Your task to perform on an android device: open device folders in google photos Image 0: 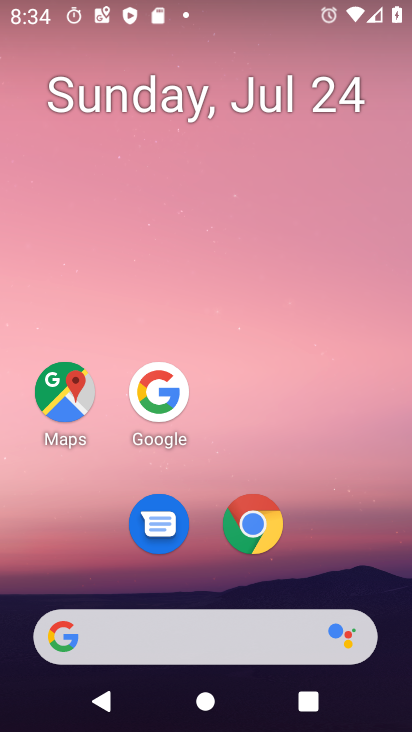
Step 0: press home button
Your task to perform on an android device: open device folders in google photos Image 1: 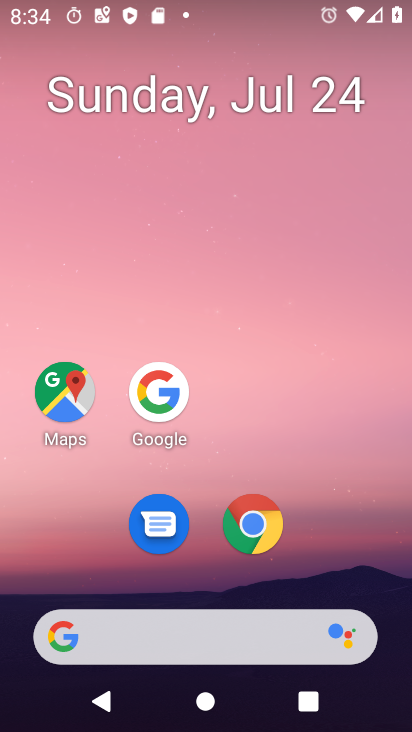
Step 1: drag from (195, 647) to (355, 0)
Your task to perform on an android device: open device folders in google photos Image 2: 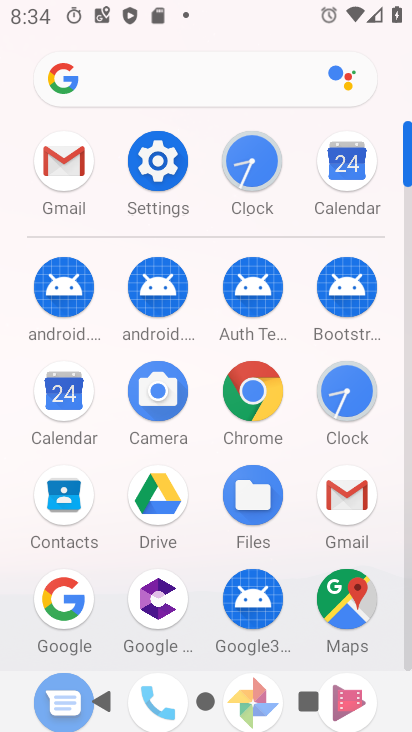
Step 2: drag from (209, 557) to (379, 104)
Your task to perform on an android device: open device folders in google photos Image 3: 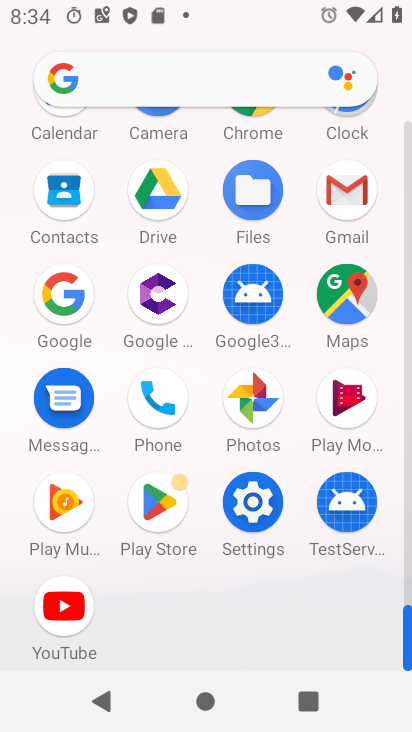
Step 3: click (236, 419)
Your task to perform on an android device: open device folders in google photos Image 4: 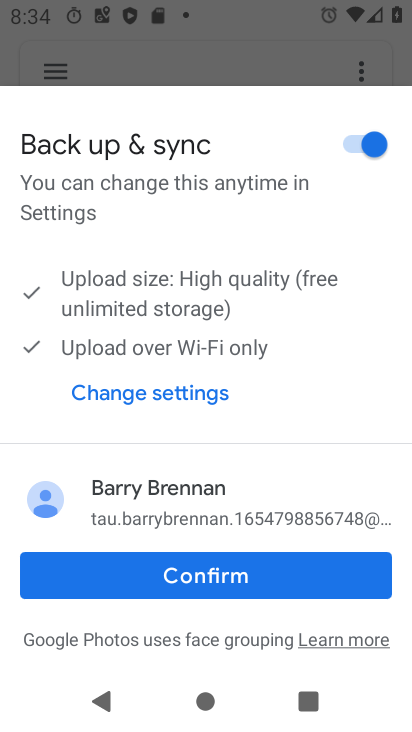
Step 4: click (250, 582)
Your task to perform on an android device: open device folders in google photos Image 5: 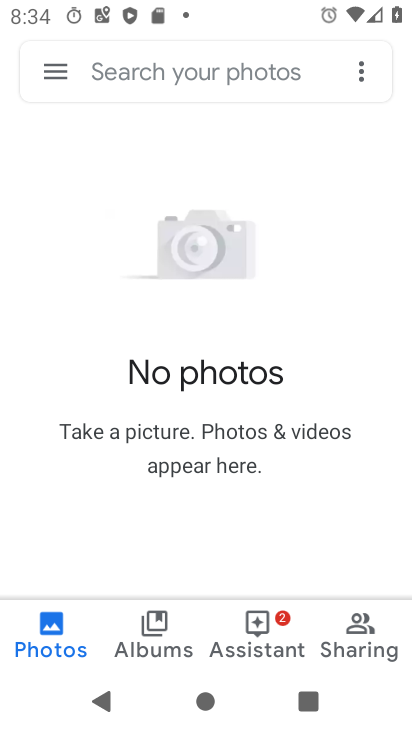
Step 5: click (60, 70)
Your task to perform on an android device: open device folders in google photos Image 6: 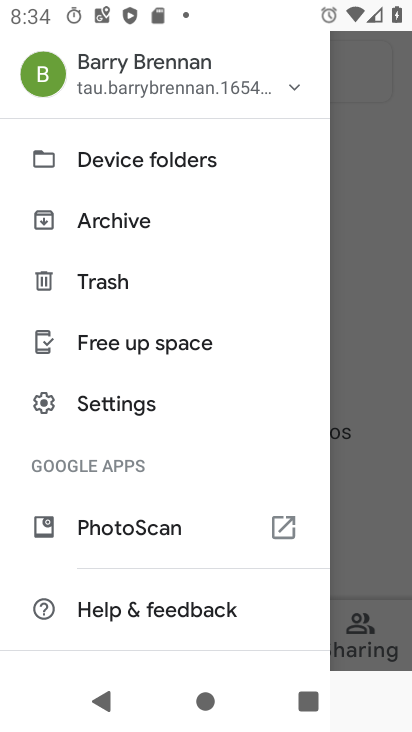
Step 6: click (112, 154)
Your task to perform on an android device: open device folders in google photos Image 7: 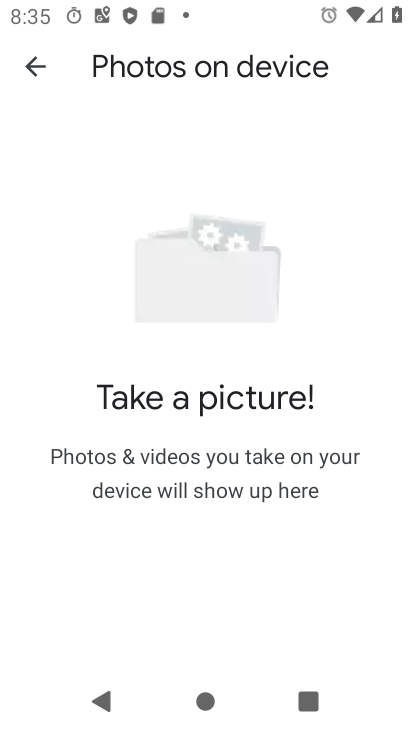
Step 7: task complete